Your task to perform on an android device: Open the Play Movies app and select the watchlist tab. Image 0: 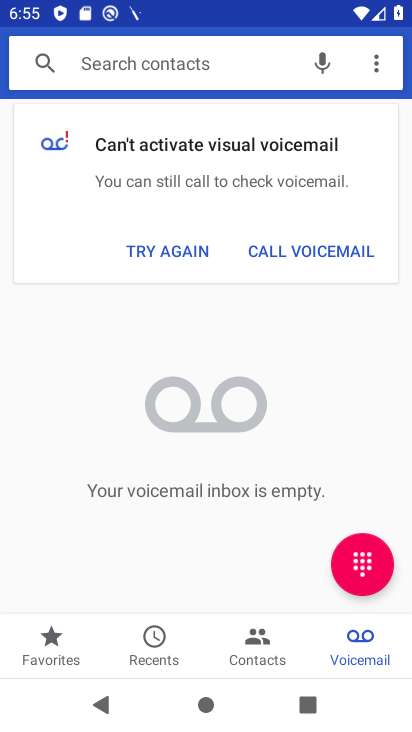
Step 0: press home button
Your task to perform on an android device: Open the Play Movies app and select the watchlist tab. Image 1: 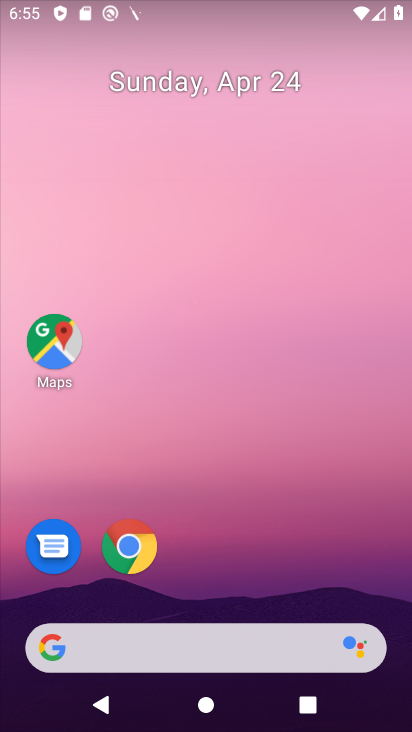
Step 1: drag from (242, 566) to (266, 8)
Your task to perform on an android device: Open the Play Movies app and select the watchlist tab. Image 2: 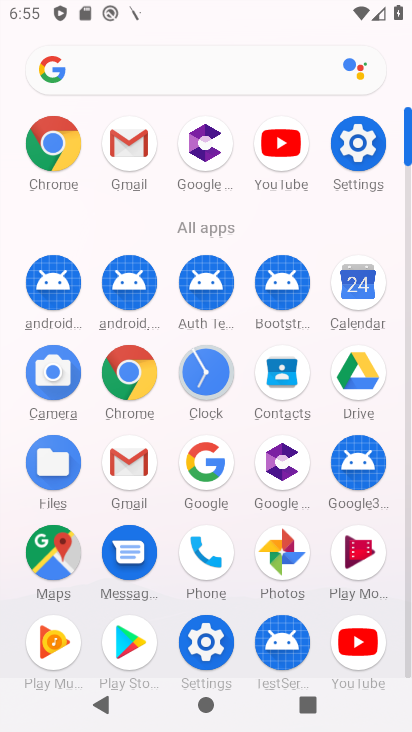
Step 2: click (356, 562)
Your task to perform on an android device: Open the Play Movies app and select the watchlist tab. Image 3: 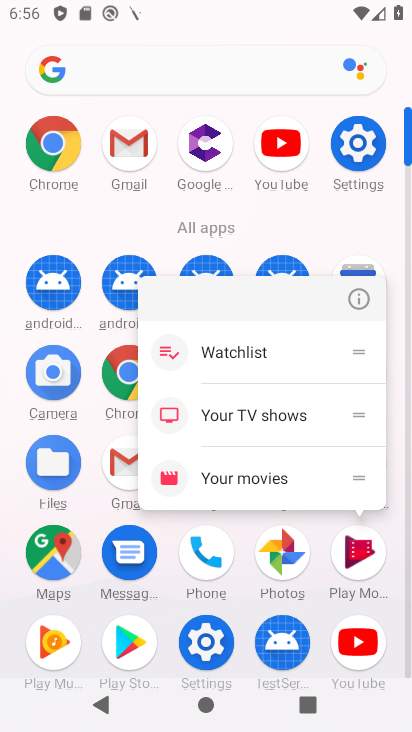
Step 3: click (351, 564)
Your task to perform on an android device: Open the Play Movies app and select the watchlist tab. Image 4: 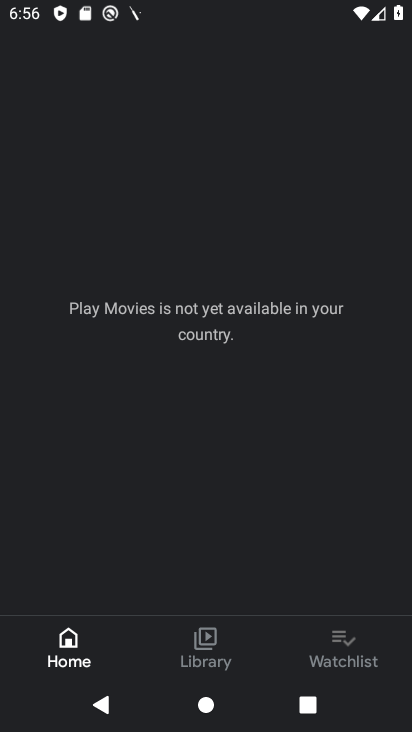
Step 4: click (339, 646)
Your task to perform on an android device: Open the Play Movies app and select the watchlist tab. Image 5: 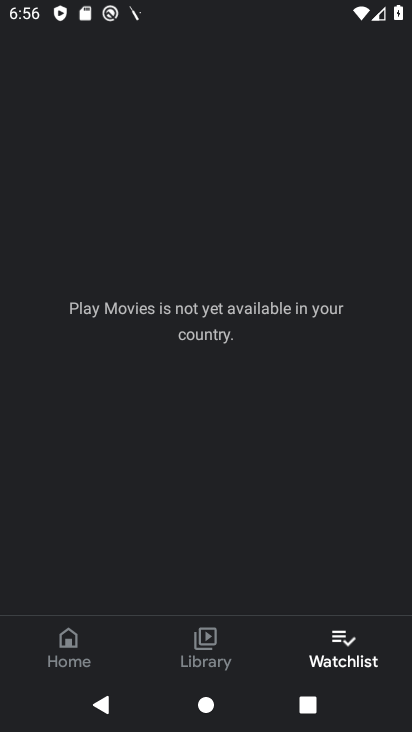
Step 5: task complete